Your task to perform on an android device: change timer sound Image 0: 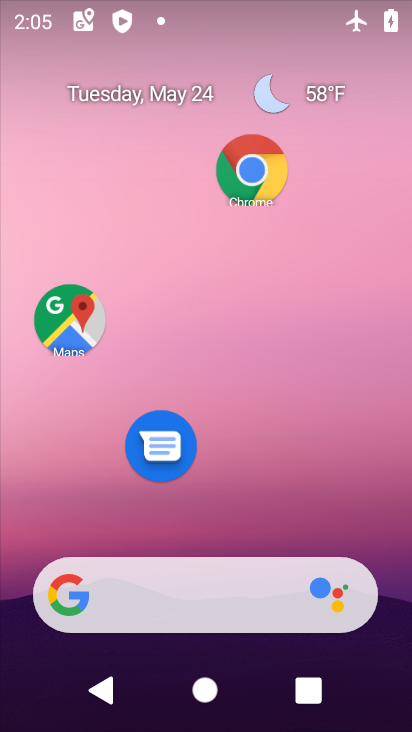
Step 0: drag from (251, 524) to (266, 151)
Your task to perform on an android device: change timer sound Image 1: 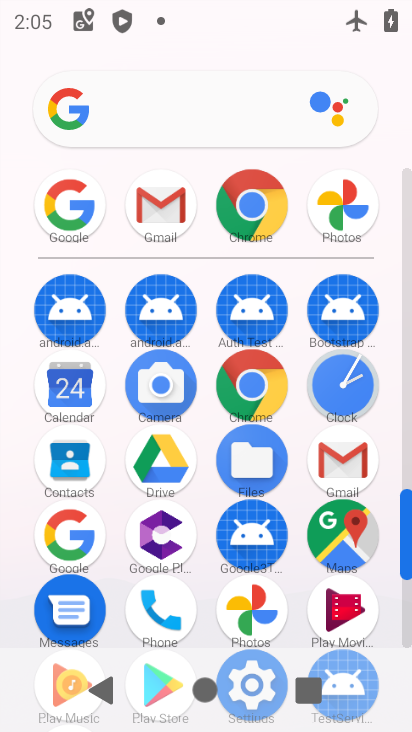
Step 1: drag from (237, 397) to (225, 134)
Your task to perform on an android device: change timer sound Image 2: 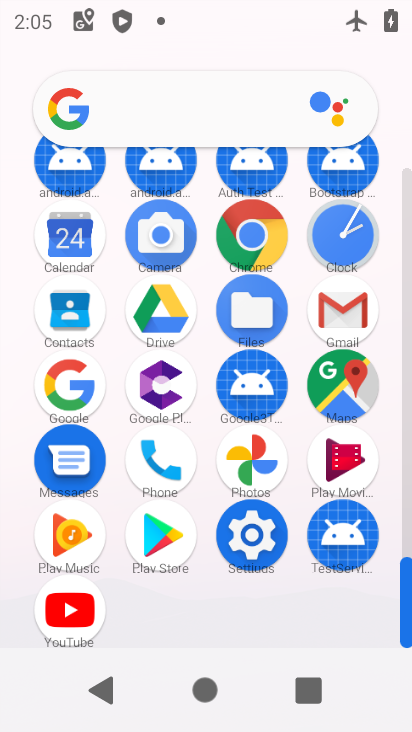
Step 2: click (340, 245)
Your task to perform on an android device: change timer sound Image 3: 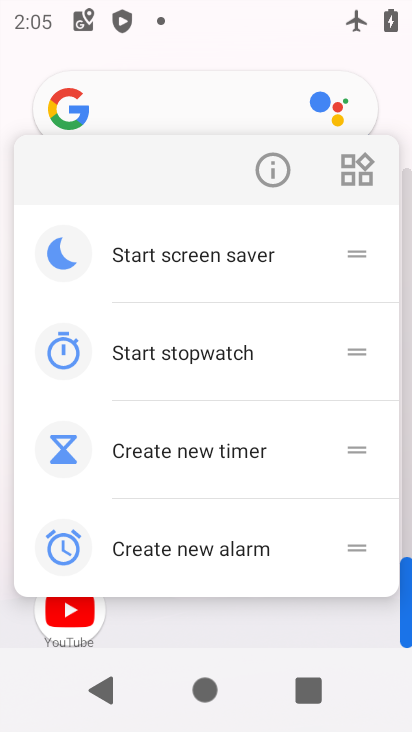
Step 3: click (285, 626)
Your task to perform on an android device: change timer sound Image 4: 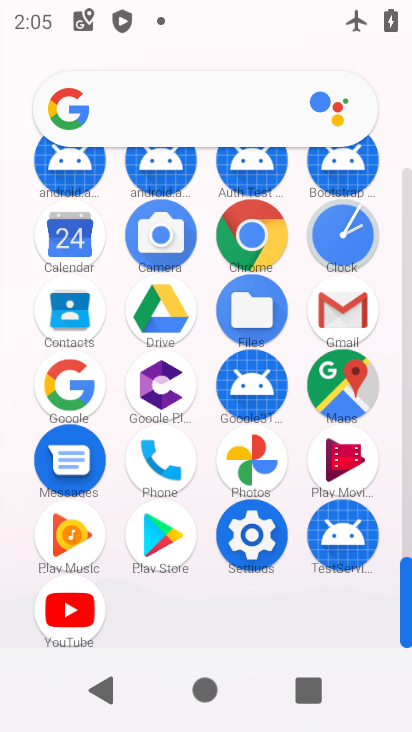
Step 4: click (352, 256)
Your task to perform on an android device: change timer sound Image 5: 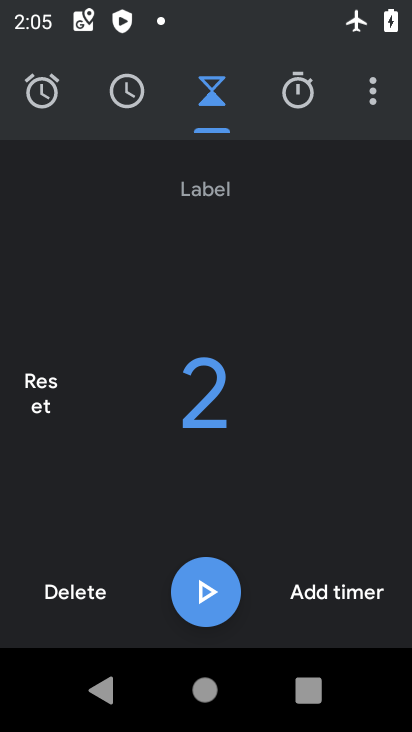
Step 5: click (371, 94)
Your task to perform on an android device: change timer sound Image 6: 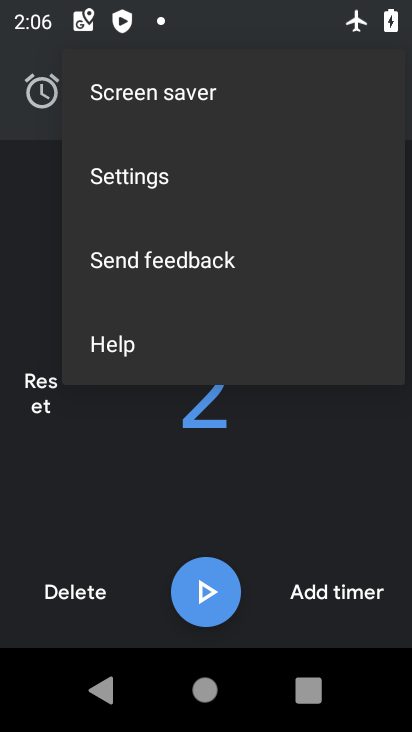
Step 6: click (157, 183)
Your task to perform on an android device: change timer sound Image 7: 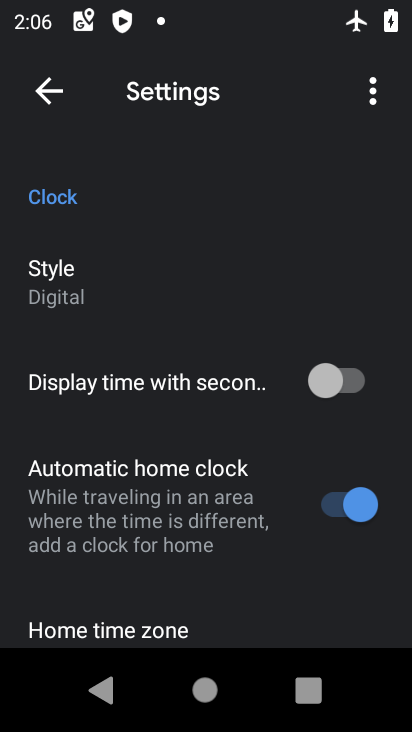
Step 7: drag from (160, 522) to (195, 213)
Your task to perform on an android device: change timer sound Image 8: 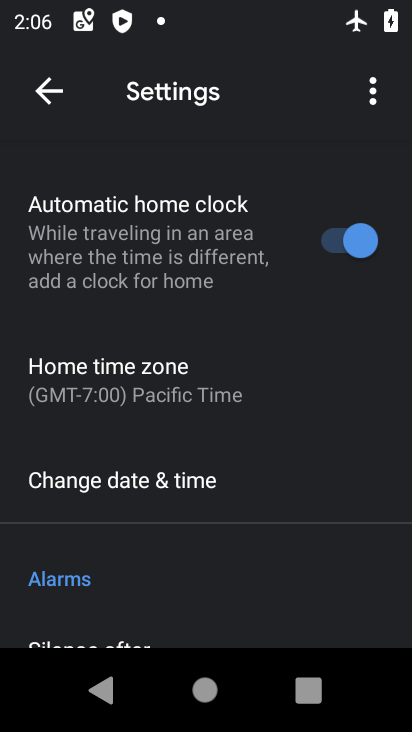
Step 8: drag from (172, 512) to (194, 302)
Your task to perform on an android device: change timer sound Image 9: 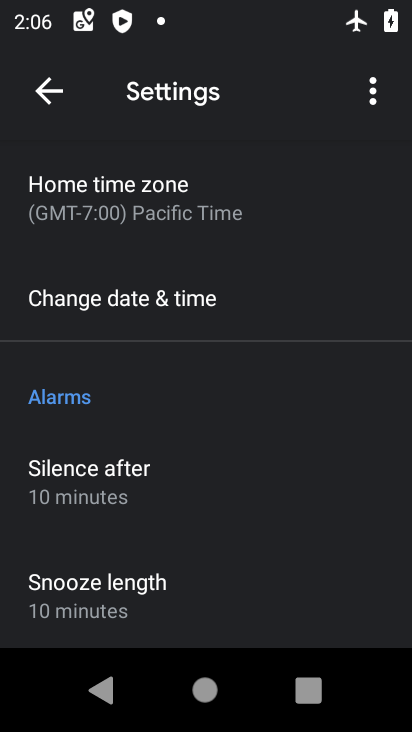
Step 9: drag from (176, 530) to (190, 219)
Your task to perform on an android device: change timer sound Image 10: 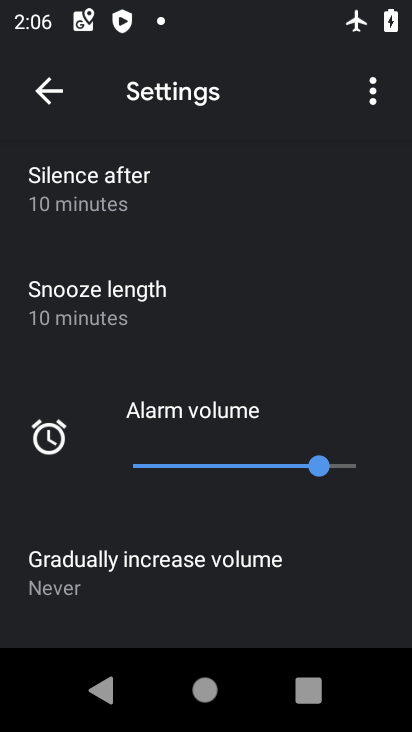
Step 10: drag from (160, 329) to (170, 131)
Your task to perform on an android device: change timer sound Image 11: 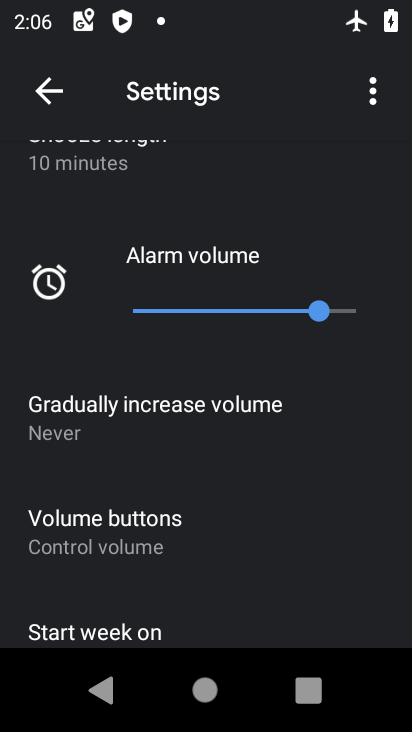
Step 11: drag from (148, 522) to (174, 147)
Your task to perform on an android device: change timer sound Image 12: 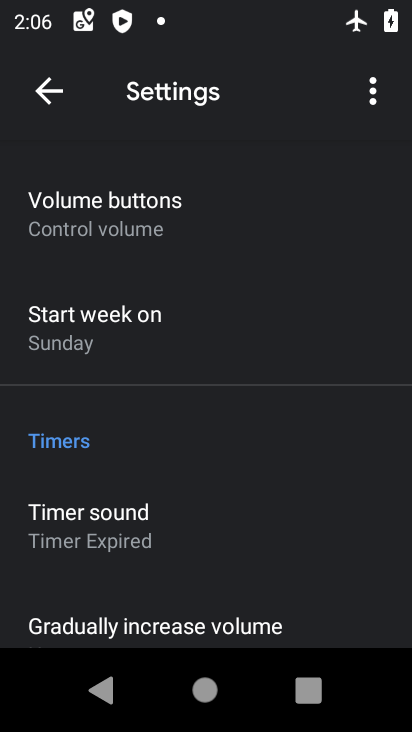
Step 12: click (152, 521)
Your task to perform on an android device: change timer sound Image 13: 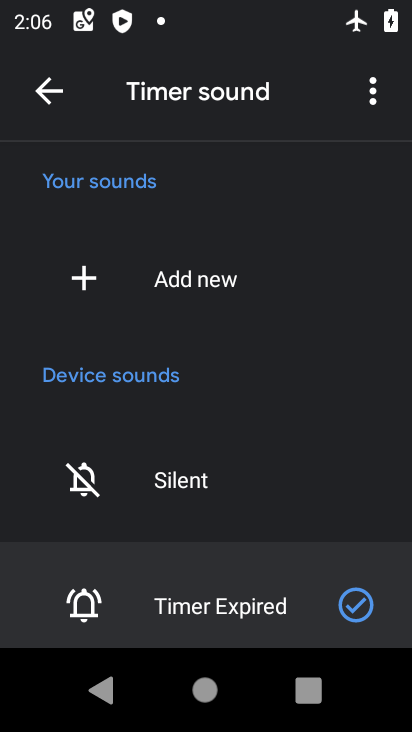
Step 13: drag from (162, 517) to (189, 333)
Your task to perform on an android device: change timer sound Image 14: 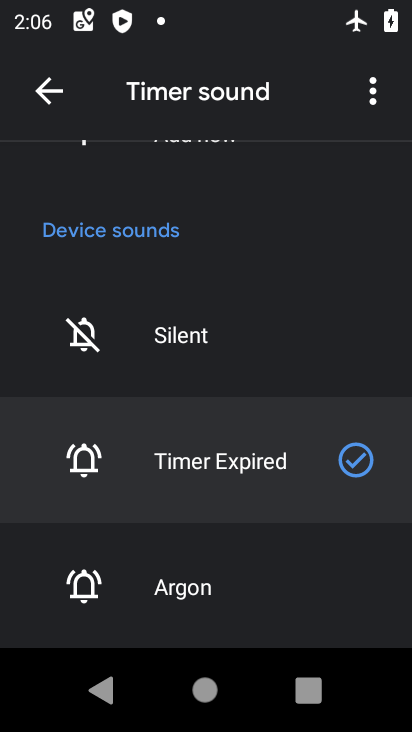
Step 14: click (200, 596)
Your task to perform on an android device: change timer sound Image 15: 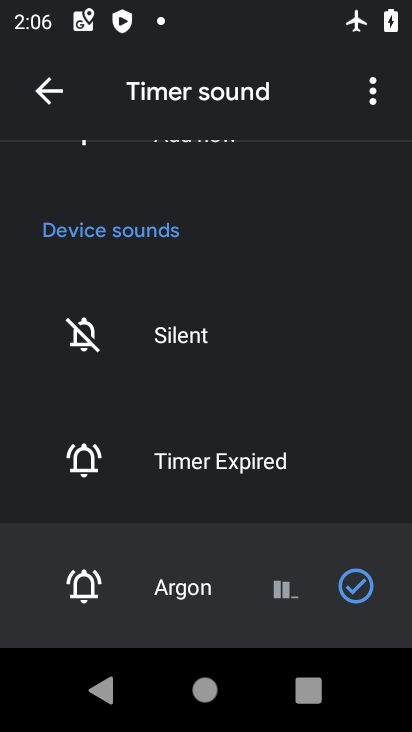
Step 15: task complete